Your task to perform on an android device: find photos in the google photos app Image 0: 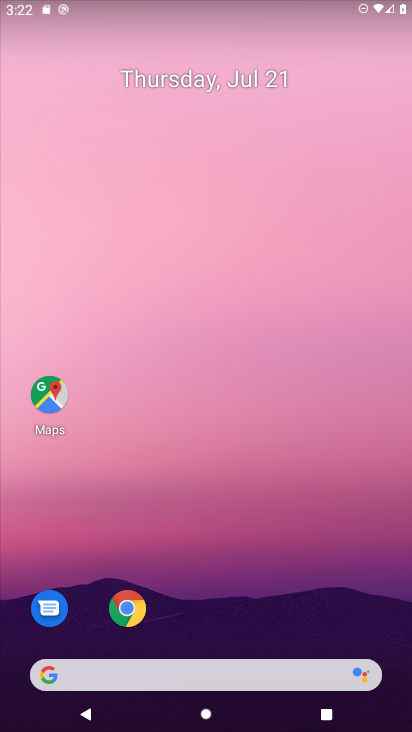
Step 0: drag from (231, 467) to (231, 208)
Your task to perform on an android device: find photos in the google photos app Image 1: 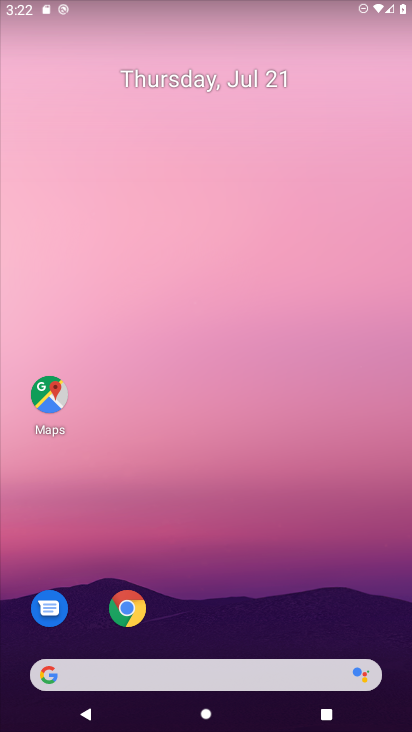
Step 1: drag from (181, 555) to (181, 202)
Your task to perform on an android device: find photos in the google photos app Image 2: 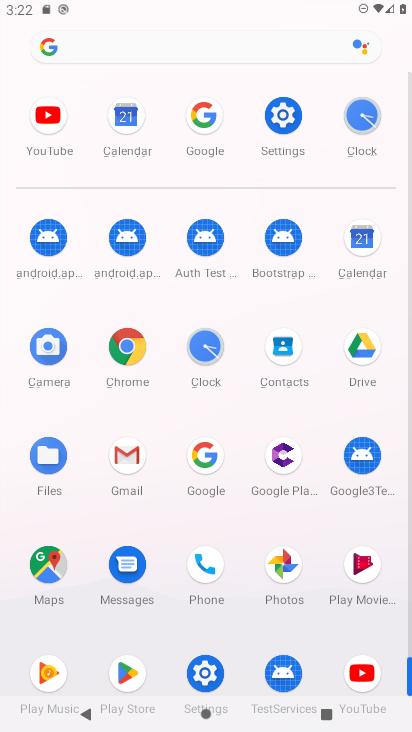
Step 2: click (293, 557)
Your task to perform on an android device: find photos in the google photos app Image 3: 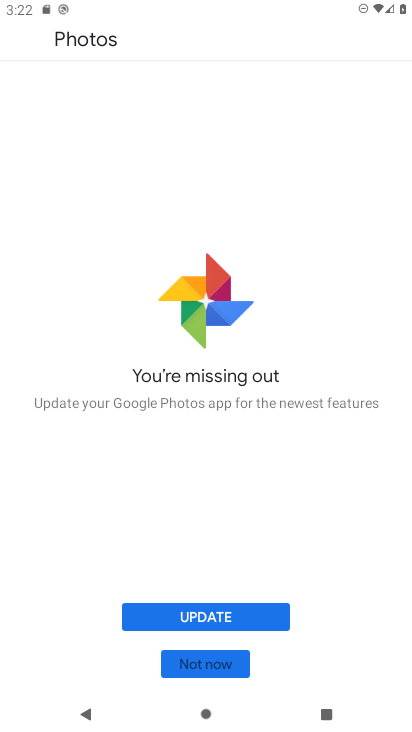
Step 3: click (209, 660)
Your task to perform on an android device: find photos in the google photos app Image 4: 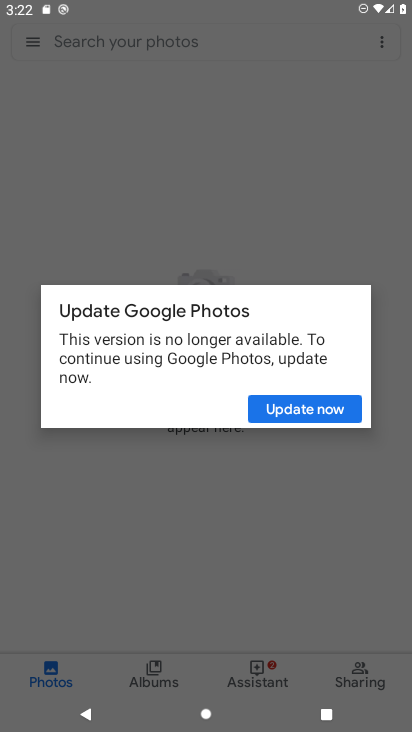
Step 4: click (287, 418)
Your task to perform on an android device: find photos in the google photos app Image 5: 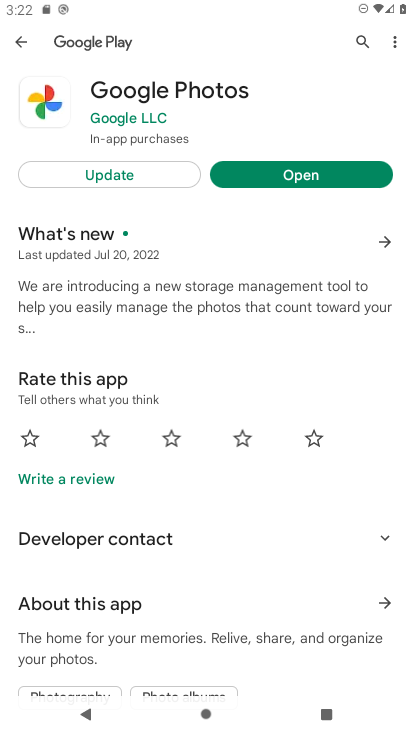
Step 5: click (254, 173)
Your task to perform on an android device: find photos in the google photos app Image 6: 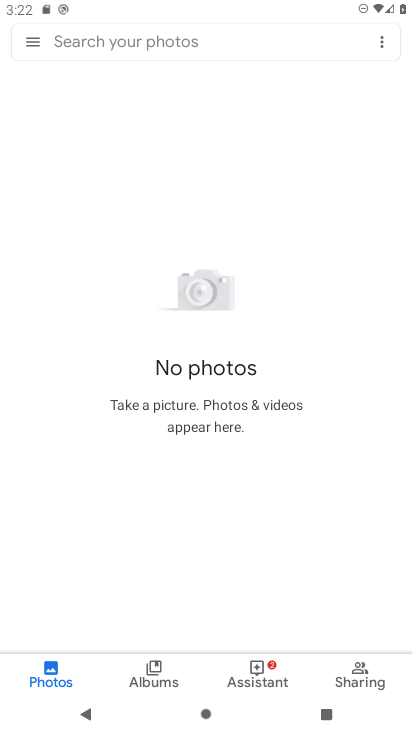
Step 6: click (112, 54)
Your task to perform on an android device: find photos in the google photos app Image 7: 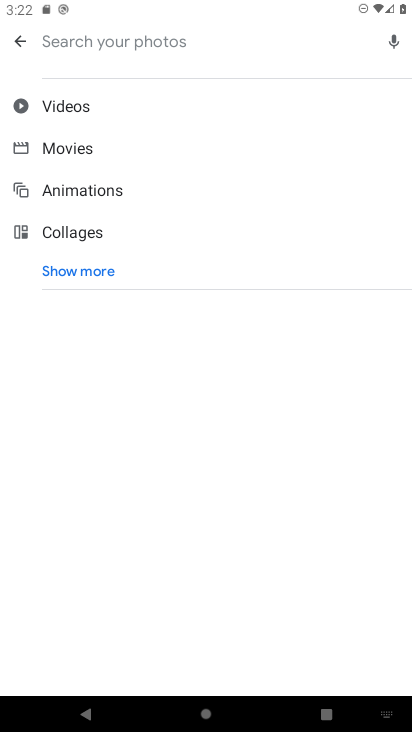
Step 7: type "aa"
Your task to perform on an android device: find photos in the google photos app Image 8: 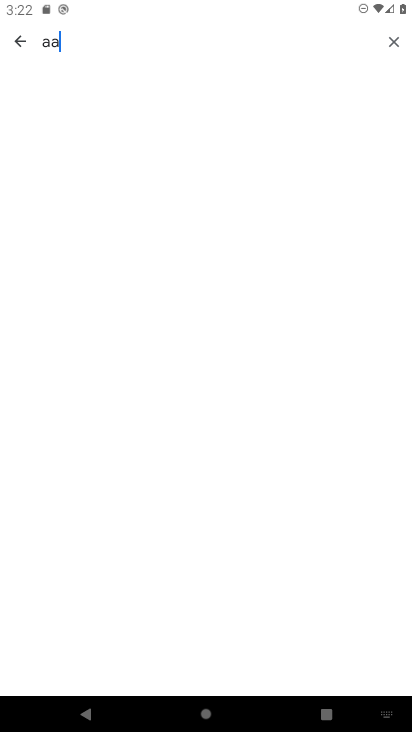
Step 8: task complete